Your task to perform on an android device: When is my next meeting? Image 0: 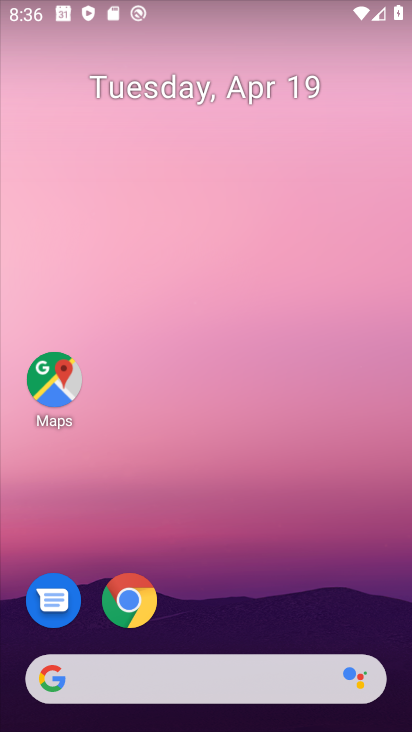
Step 0: drag from (267, 548) to (196, 64)
Your task to perform on an android device: When is my next meeting? Image 1: 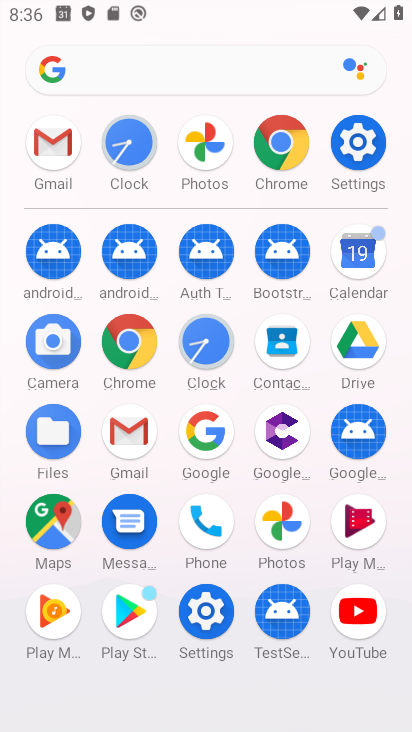
Step 1: click (367, 250)
Your task to perform on an android device: When is my next meeting? Image 2: 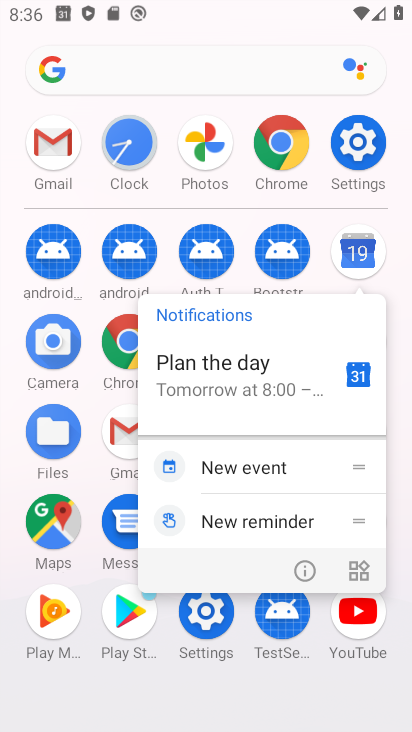
Step 2: click (362, 258)
Your task to perform on an android device: When is my next meeting? Image 3: 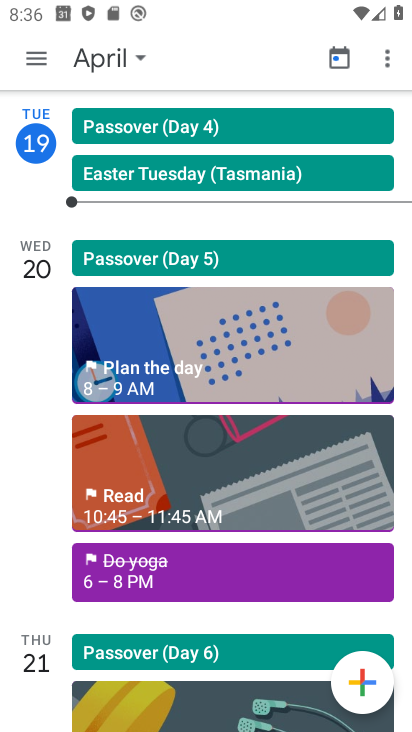
Step 3: click (101, 56)
Your task to perform on an android device: When is my next meeting? Image 4: 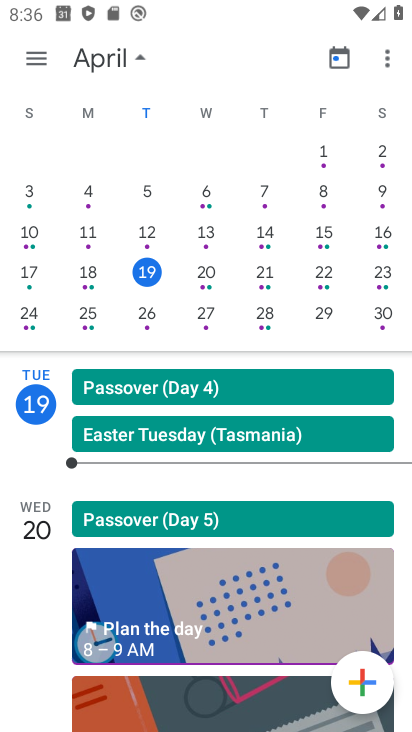
Step 4: task complete